Your task to perform on an android device: Open eBay Image 0: 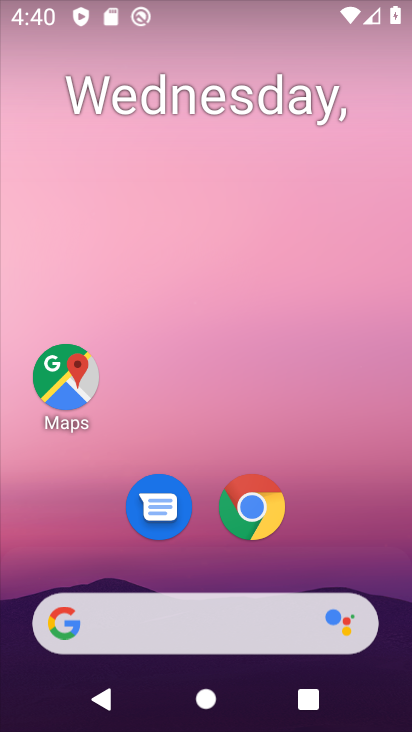
Step 0: click (206, 644)
Your task to perform on an android device: Open eBay Image 1: 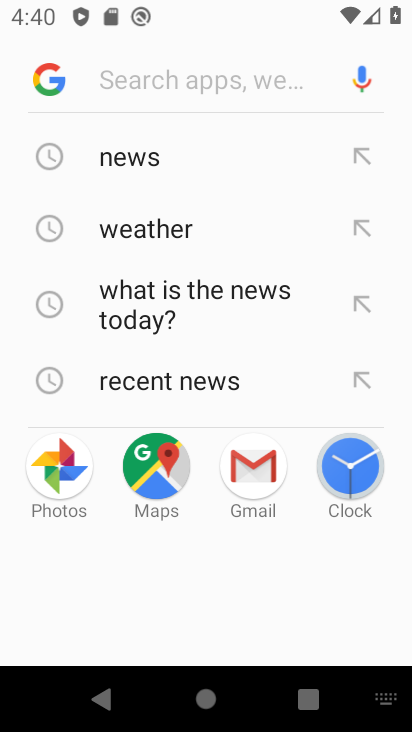
Step 1: type "eBay"
Your task to perform on an android device: Open eBay Image 2: 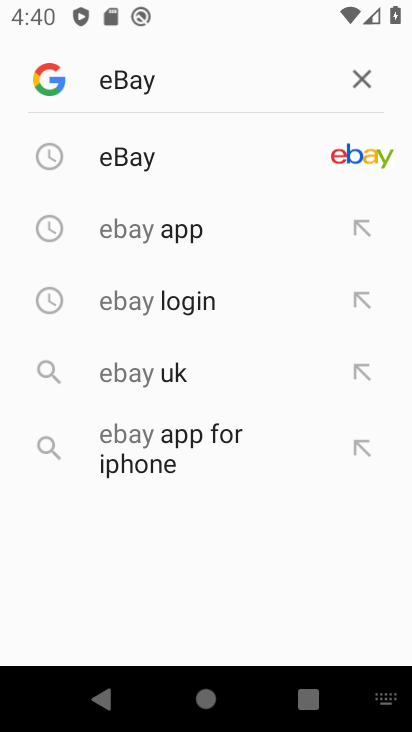
Step 2: click (169, 150)
Your task to perform on an android device: Open eBay Image 3: 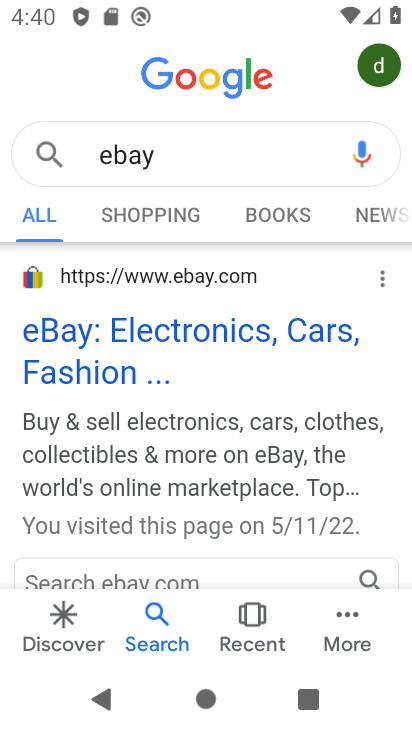
Step 3: click (75, 341)
Your task to perform on an android device: Open eBay Image 4: 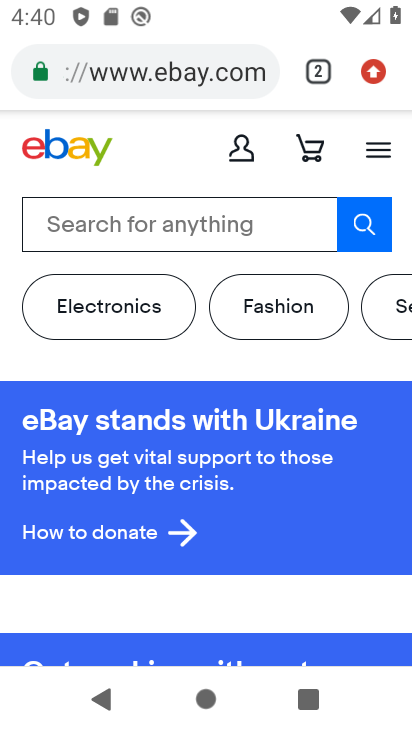
Step 4: task complete